Your task to perform on an android device: Go to settings Image 0: 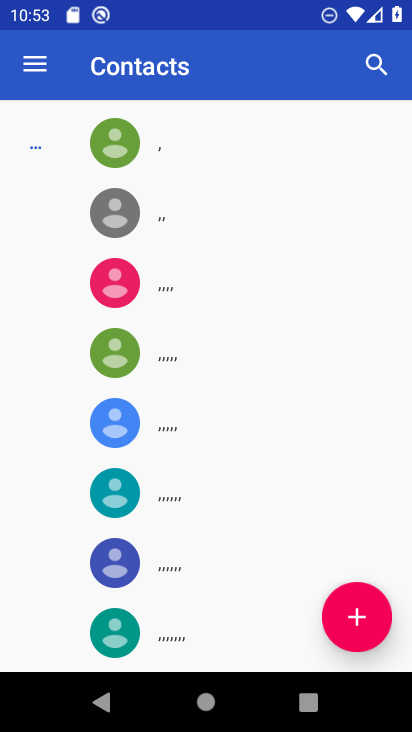
Step 0: press home button
Your task to perform on an android device: Go to settings Image 1: 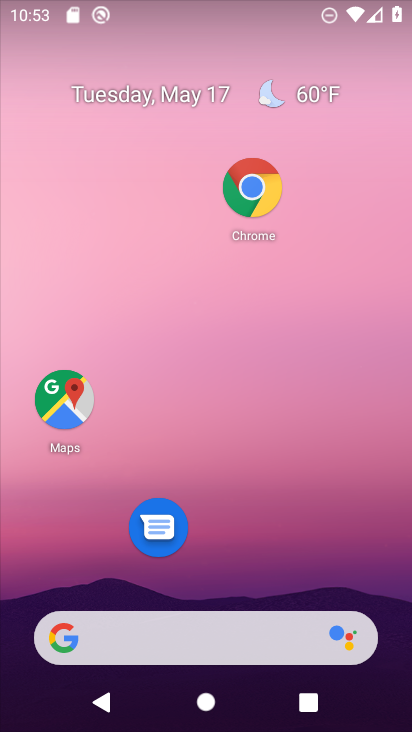
Step 1: drag from (322, 587) to (279, 5)
Your task to perform on an android device: Go to settings Image 2: 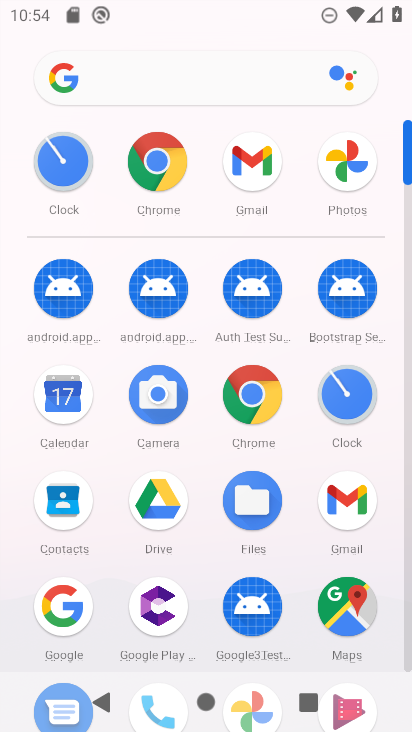
Step 2: click (403, 555)
Your task to perform on an android device: Go to settings Image 3: 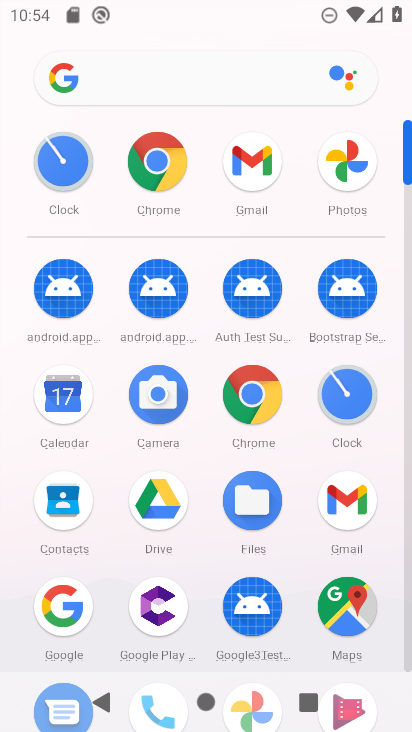
Step 3: click (403, 555)
Your task to perform on an android device: Go to settings Image 4: 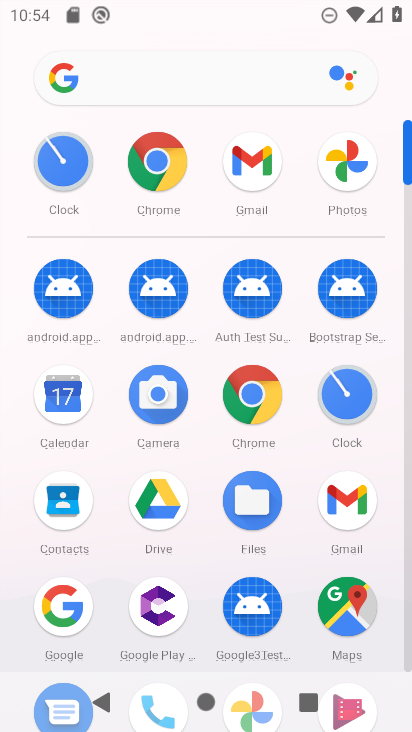
Step 4: click (406, 639)
Your task to perform on an android device: Go to settings Image 5: 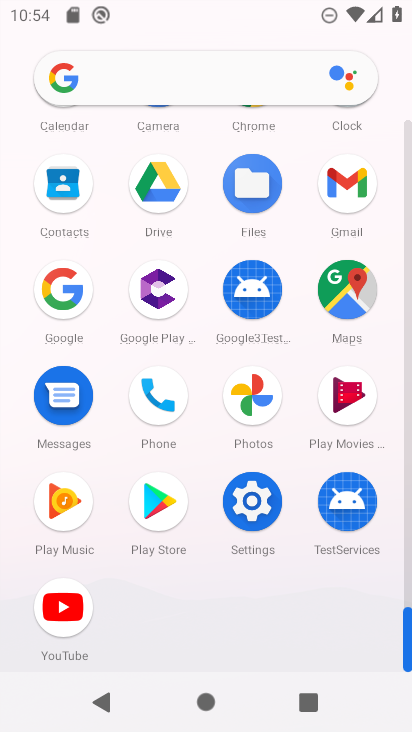
Step 5: click (239, 492)
Your task to perform on an android device: Go to settings Image 6: 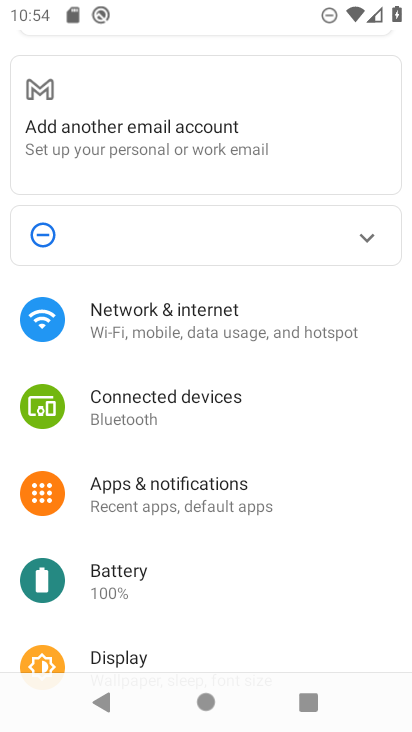
Step 6: task complete